Your task to perform on an android device: delete the emails in spam in the gmail app Image 0: 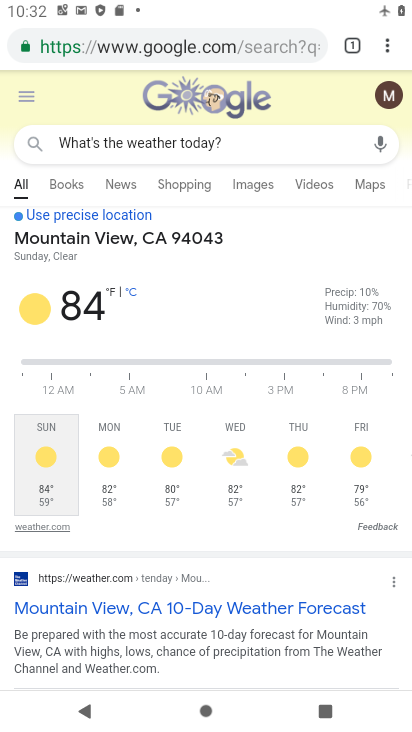
Step 0: press home button
Your task to perform on an android device: delete the emails in spam in the gmail app Image 1: 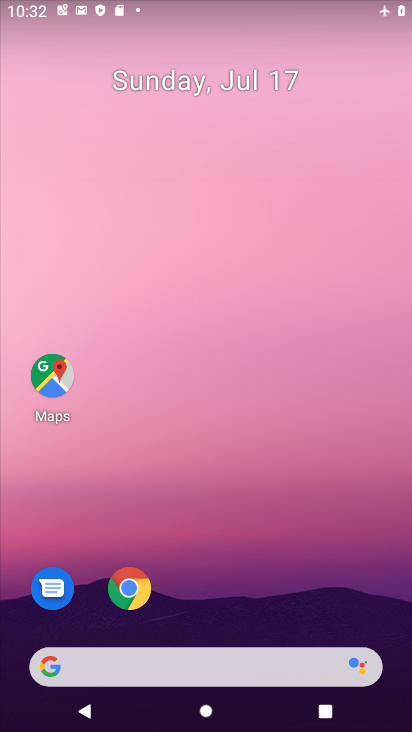
Step 1: drag from (365, 178) to (373, 49)
Your task to perform on an android device: delete the emails in spam in the gmail app Image 2: 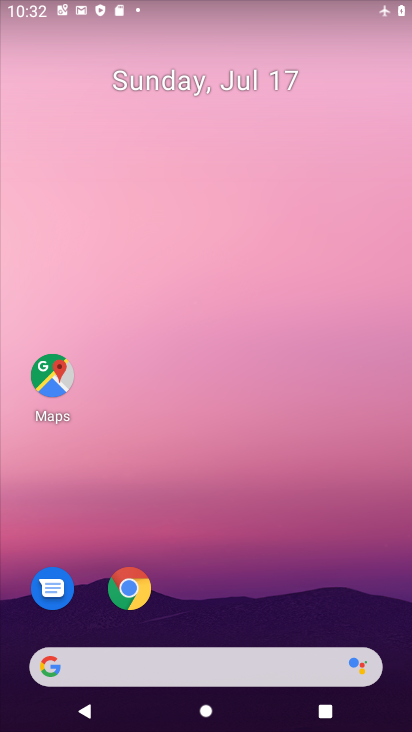
Step 2: drag from (313, 623) to (98, 51)
Your task to perform on an android device: delete the emails in spam in the gmail app Image 3: 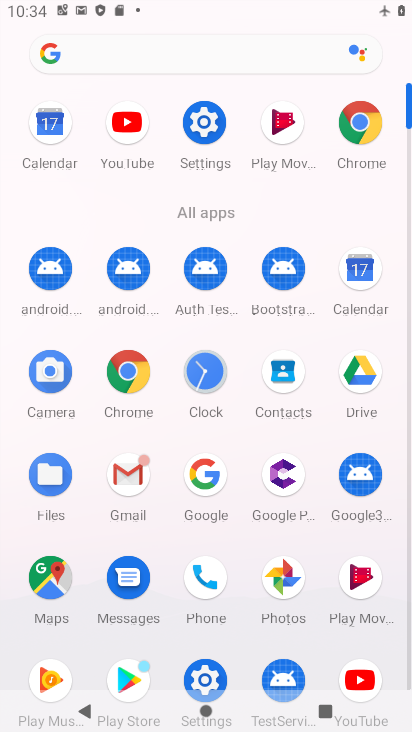
Step 3: click (129, 453)
Your task to perform on an android device: delete the emails in spam in the gmail app Image 4: 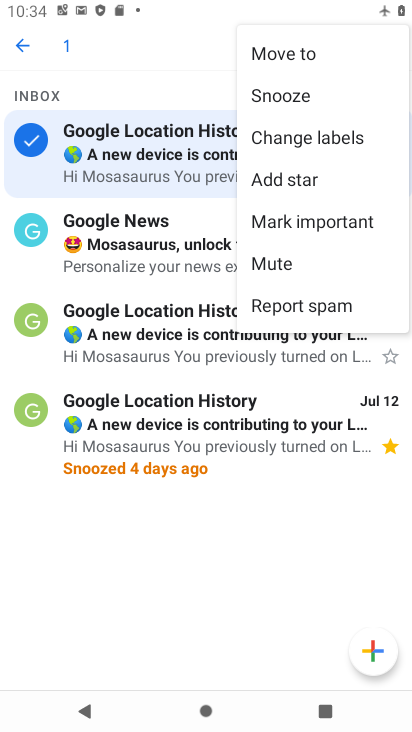
Step 4: click (97, 293)
Your task to perform on an android device: delete the emails in spam in the gmail app Image 5: 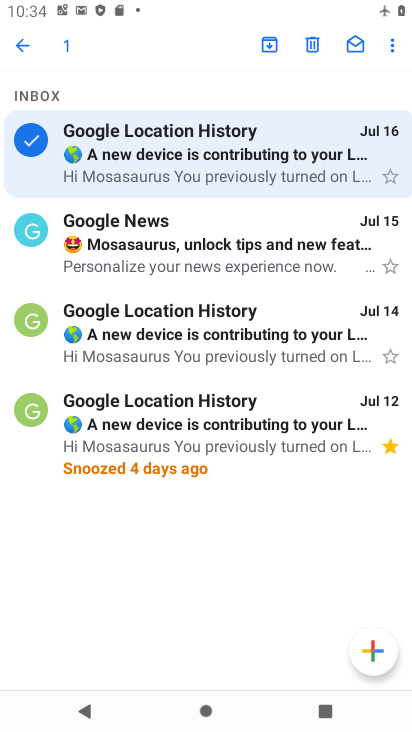
Step 5: click (305, 41)
Your task to perform on an android device: delete the emails in spam in the gmail app Image 6: 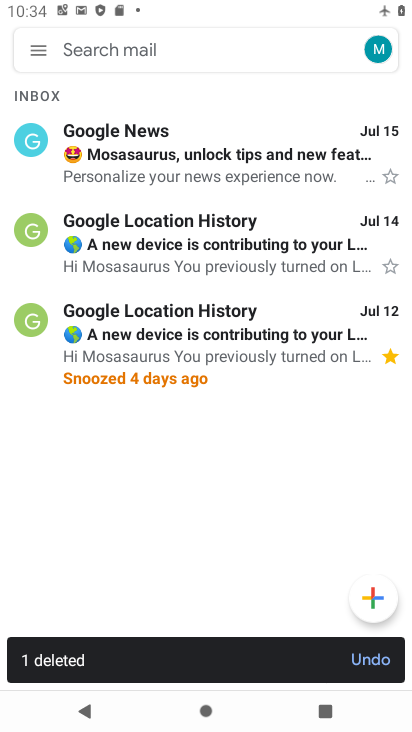
Step 6: task complete